Your task to perform on an android device: When is my next appointment? Image 0: 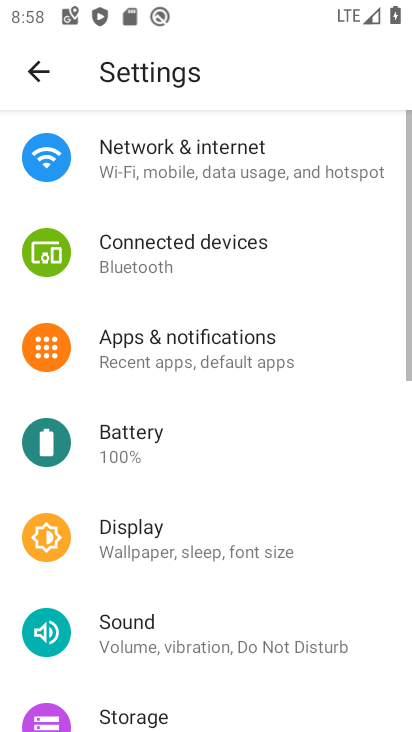
Step 0: press home button
Your task to perform on an android device: When is my next appointment? Image 1: 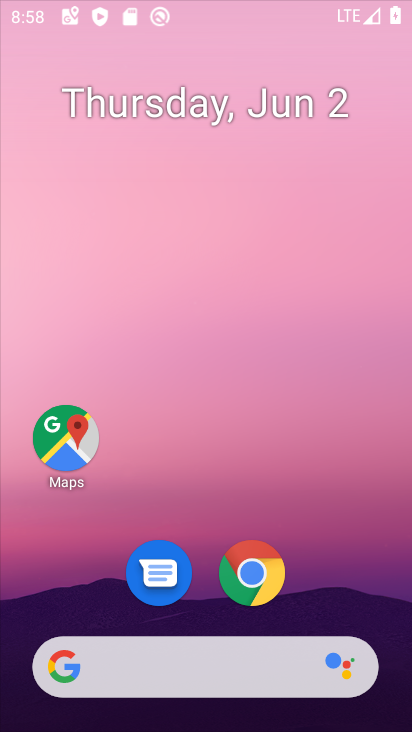
Step 1: drag from (360, 579) to (408, 72)
Your task to perform on an android device: When is my next appointment? Image 2: 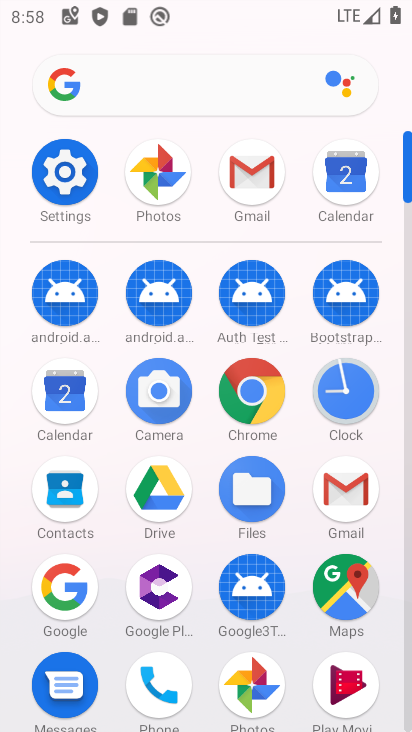
Step 2: click (88, 408)
Your task to perform on an android device: When is my next appointment? Image 3: 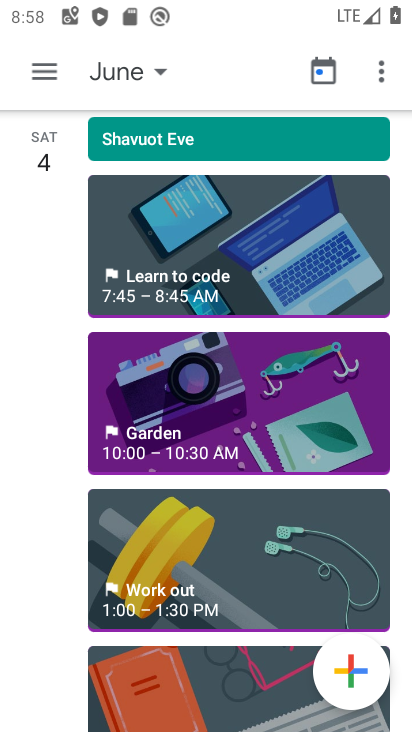
Step 3: click (155, 75)
Your task to perform on an android device: When is my next appointment? Image 4: 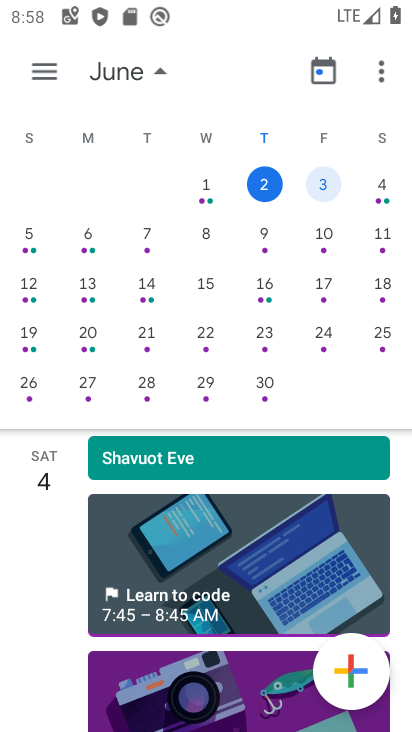
Step 4: click (155, 75)
Your task to perform on an android device: When is my next appointment? Image 5: 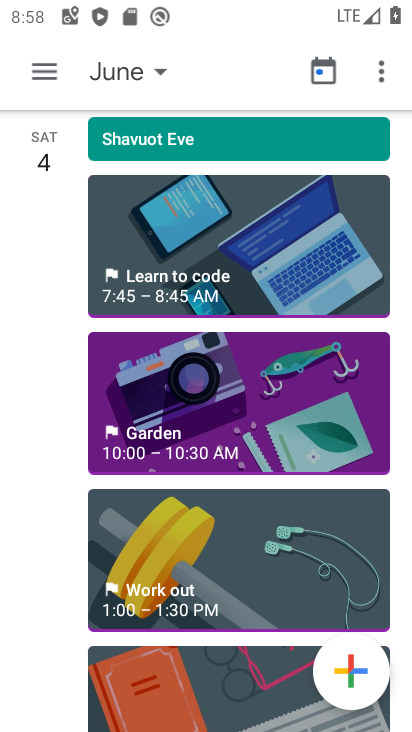
Step 5: task complete